Your task to perform on an android device: see sites visited before in the chrome app Image 0: 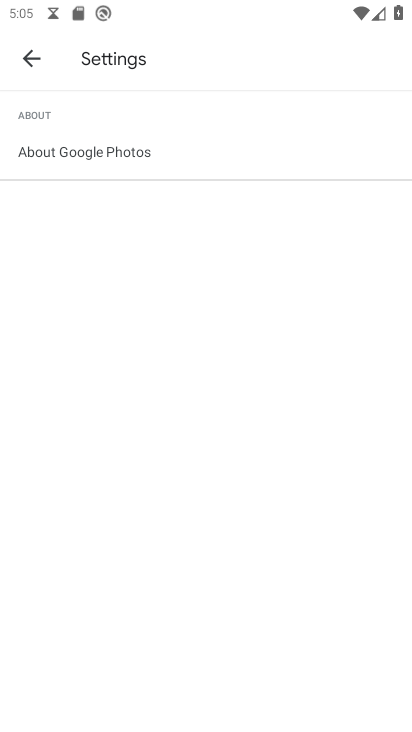
Step 0: press home button
Your task to perform on an android device: see sites visited before in the chrome app Image 1: 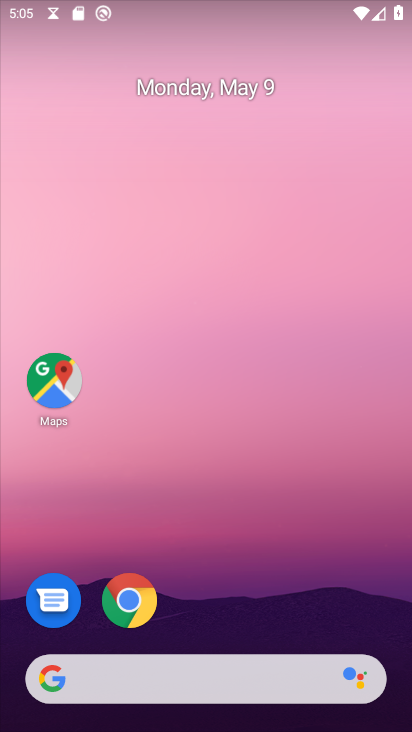
Step 1: drag from (312, 693) to (346, 118)
Your task to perform on an android device: see sites visited before in the chrome app Image 2: 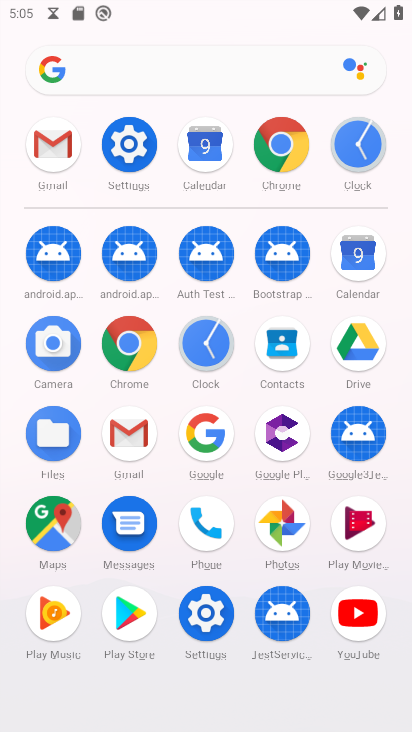
Step 2: click (119, 354)
Your task to perform on an android device: see sites visited before in the chrome app Image 3: 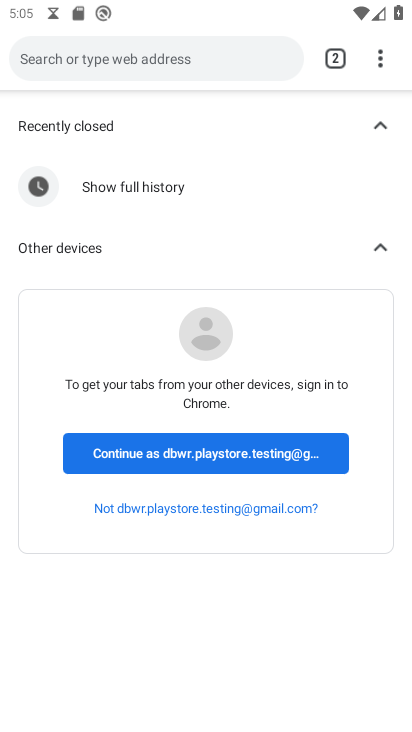
Step 3: click (378, 56)
Your task to perform on an android device: see sites visited before in the chrome app Image 4: 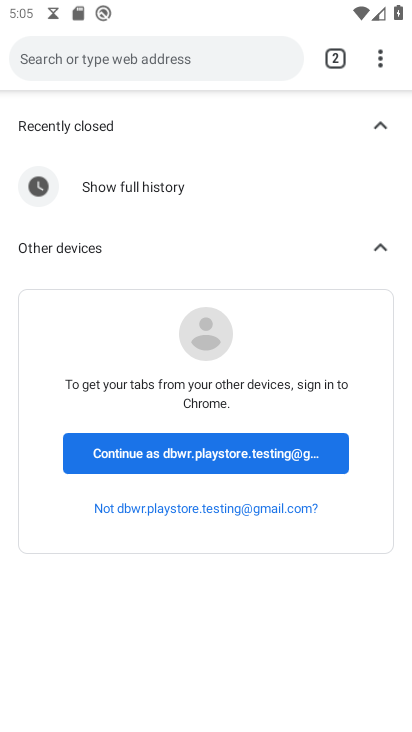
Step 4: task complete